Your task to perform on an android device: Open Youtube and go to the subscriptions tab Image 0: 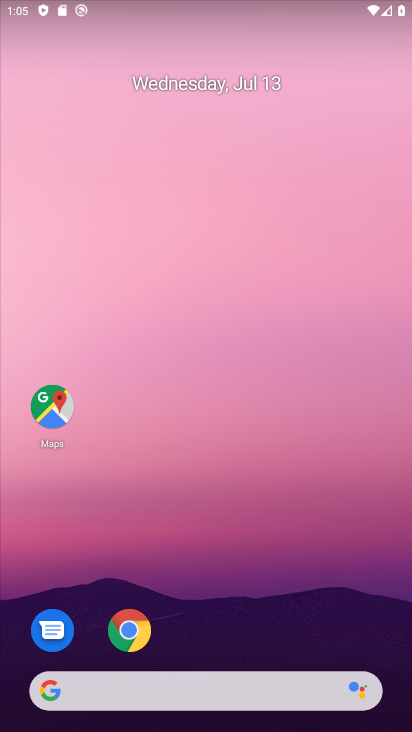
Step 0: drag from (374, 556) to (380, 109)
Your task to perform on an android device: Open Youtube and go to the subscriptions tab Image 1: 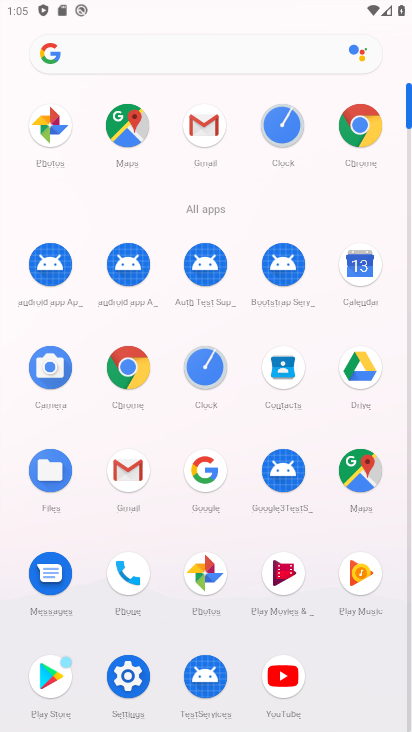
Step 1: click (291, 681)
Your task to perform on an android device: Open Youtube and go to the subscriptions tab Image 2: 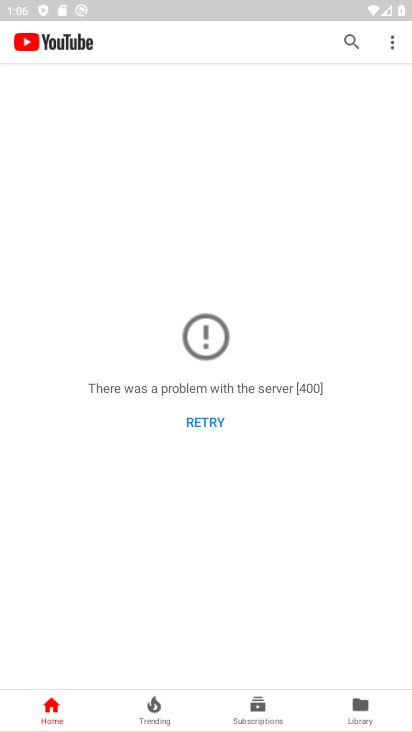
Step 2: click (256, 704)
Your task to perform on an android device: Open Youtube and go to the subscriptions tab Image 3: 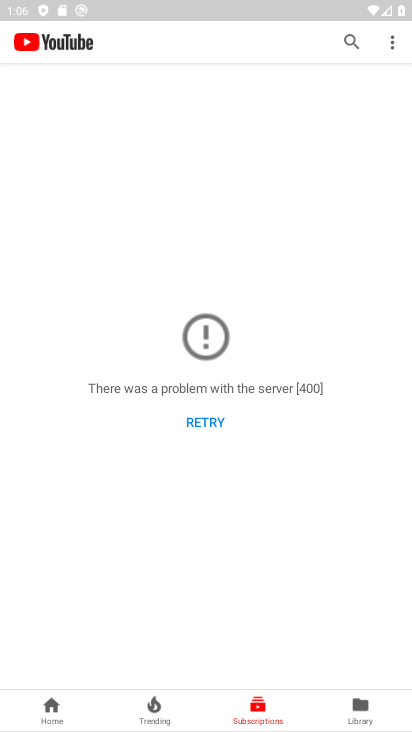
Step 3: task complete